Your task to perform on an android device: turn on wifi Image 0: 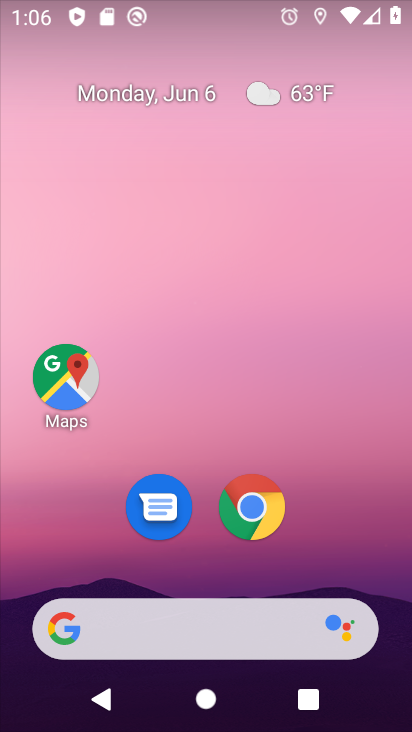
Step 0: drag from (208, 433) to (180, 0)
Your task to perform on an android device: turn on wifi Image 1: 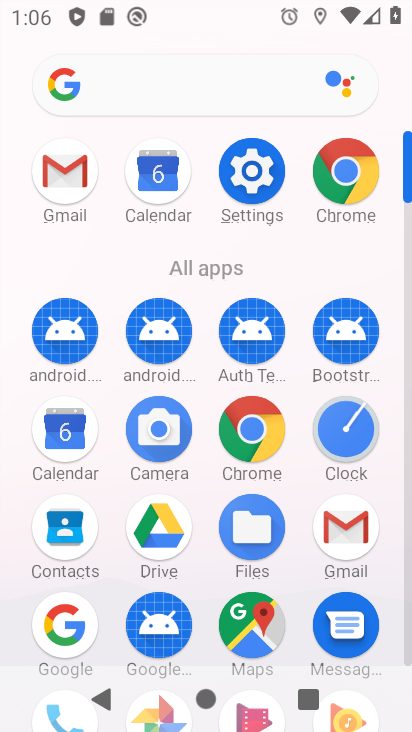
Step 1: click (248, 164)
Your task to perform on an android device: turn on wifi Image 2: 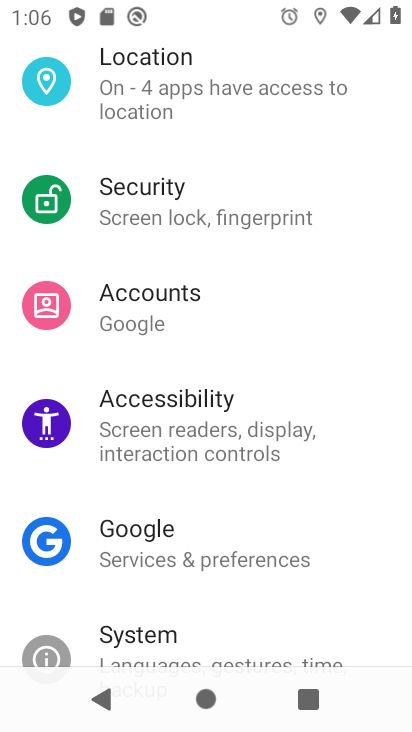
Step 2: drag from (248, 171) to (244, 638)
Your task to perform on an android device: turn on wifi Image 3: 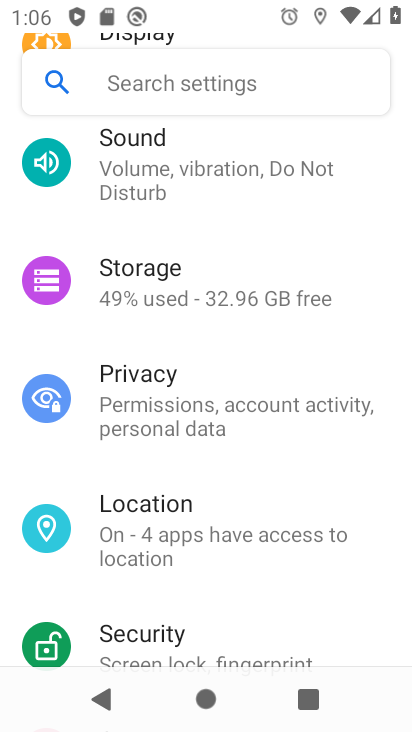
Step 3: drag from (266, 251) to (300, 627)
Your task to perform on an android device: turn on wifi Image 4: 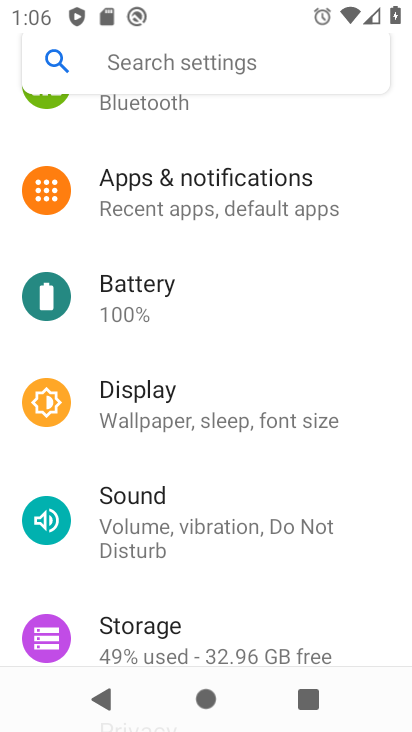
Step 4: drag from (222, 339) to (229, 627)
Your task to perform on an android device: turn on wifi Image 5: 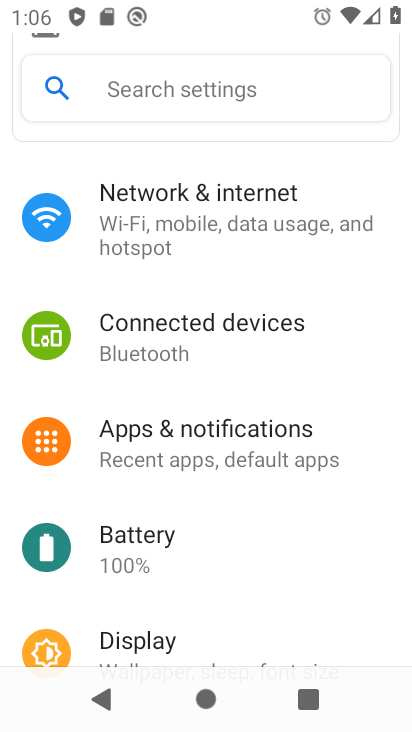
Step 5: click (220, 212)
Your task to perform on an android device: turn on wifi Image 6: 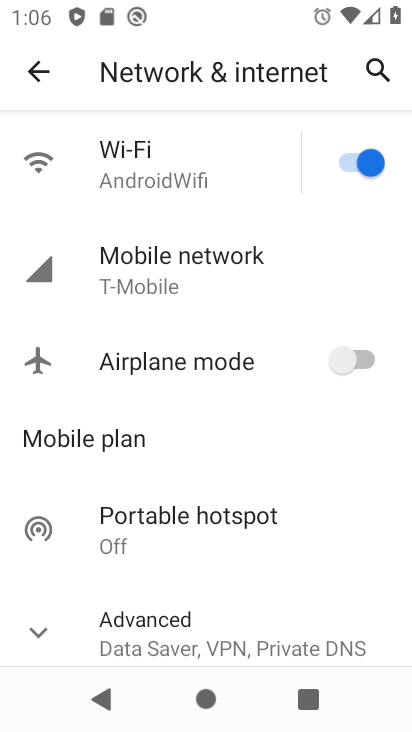
Step 6: task complete